Your task to perform on an android device: set the stopwatch Image 0: 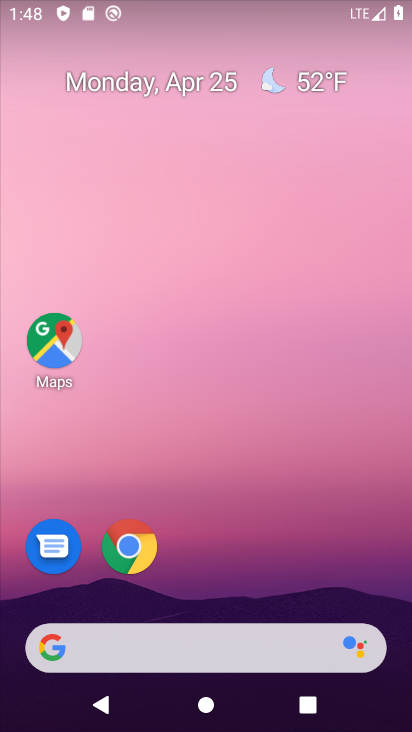
Step 0: drag from (169, 645) to (139, 23)
Your task to perform on an android device: set the stopwatch Image 1: 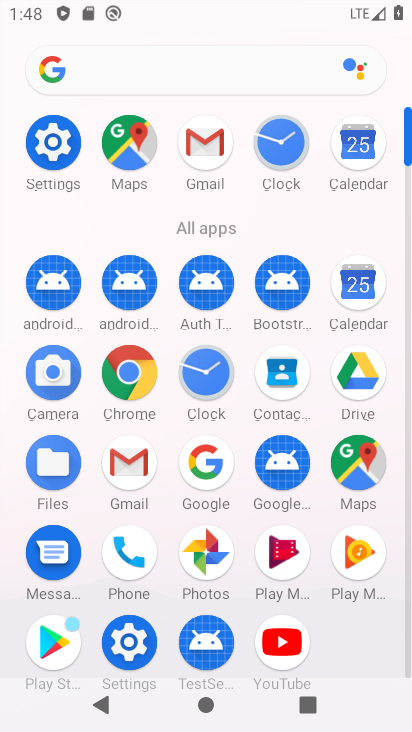
Step 1: click (213, 357)
Your task to perform on an android device: set the stopwatch Image 2: 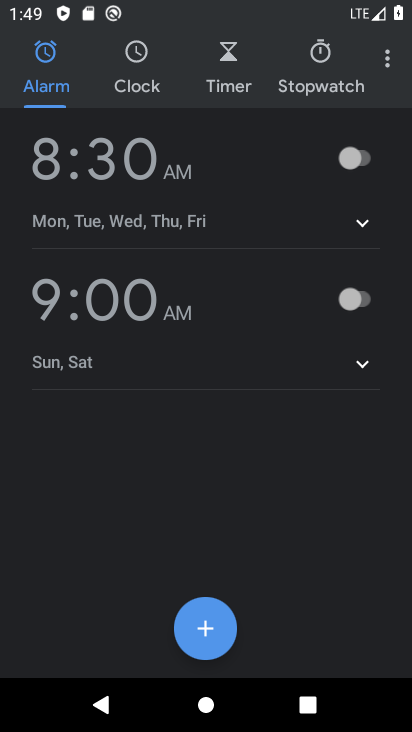
Step 2: click (303, 86)
Your task to perform on an android device: set the stopwatch Image 3: 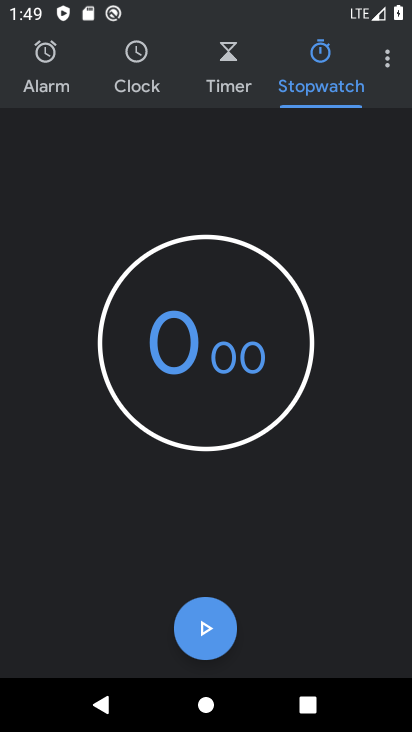
Step 3: click (211, 623)
Your task to perform on an android device: set the stopwatch Image 4: 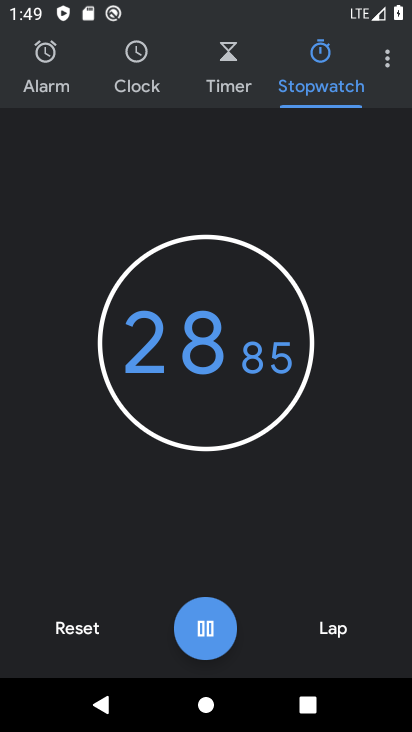
Step 4: task complete